Your task to perform on an android device: see creations saved in the google photos Image 0: 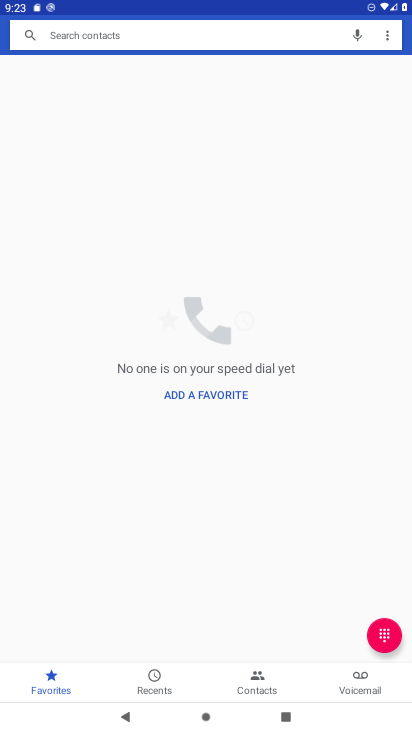
Step 0: press home button
Your task to perform on an android device: see creations saved in the google photos Image 1: 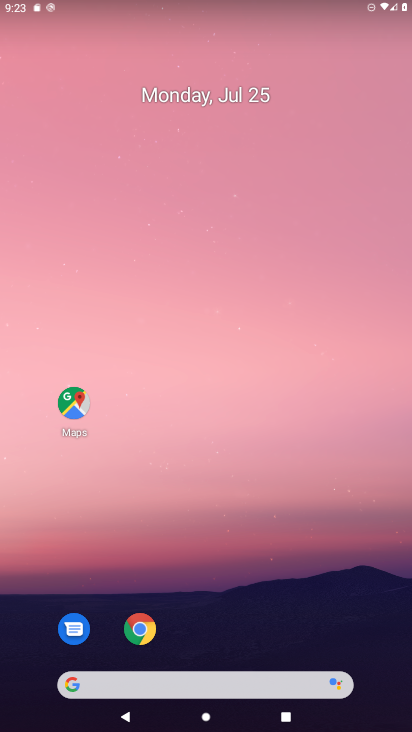
Step 1: drag from (202, 641) to (121, 0)
Your task to perform on an android device: see creations saved in the google photos Image 2: 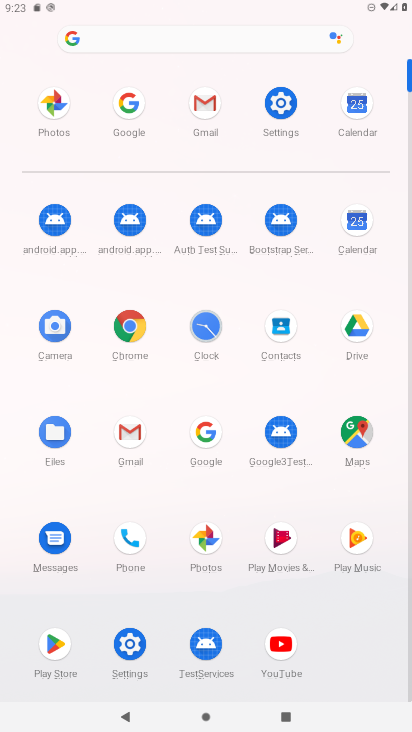
Step 2: click (56, 123)
Your task to perform on an android device: see creations saved in the google photos Image 3: 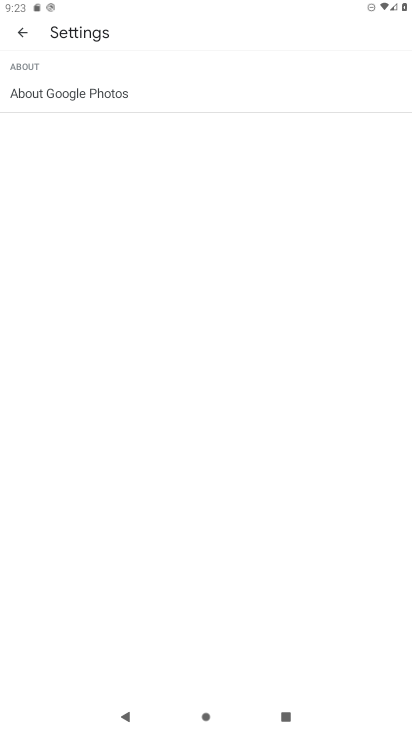
Step 3: click (16, 39)
Your task to perform on an android device: see creations saved in the google photos Image 4: 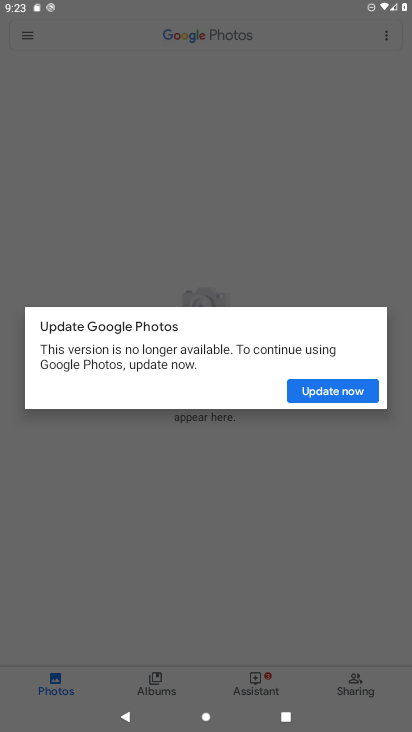
Step 4: click (360, 401)
Your task to perform on an android device: see creations saved in the google photos Image 5: 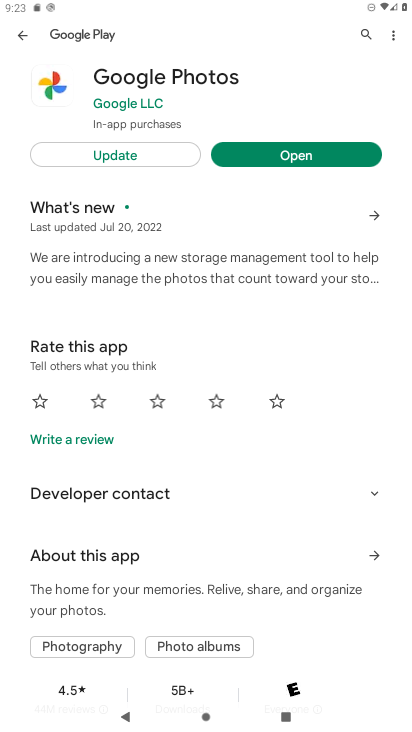
Step 5: click (260, 174)
Your task to perform on an android device: see creations saved in the google photos Image 6: 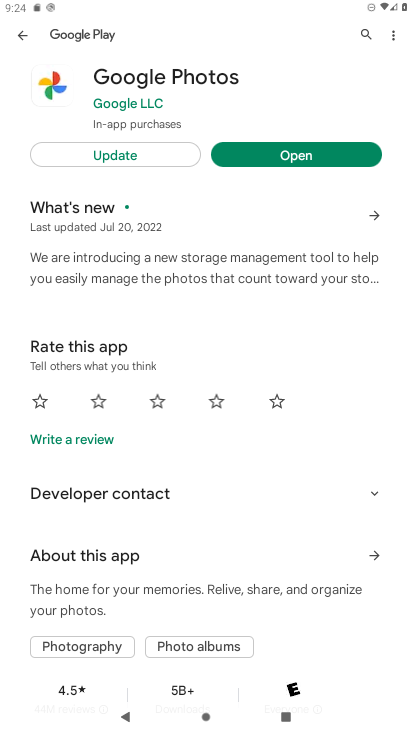
Step 6: click (264, 159)
Your task to perform on an android device: see creations saved in the google photos Image 7: 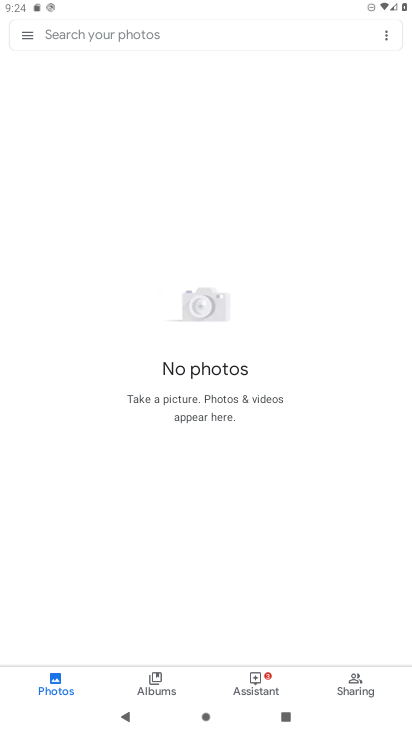
Step 7: click (63, 32)
Your task to perform on an android device: see creations saved in the google photos Image 8: 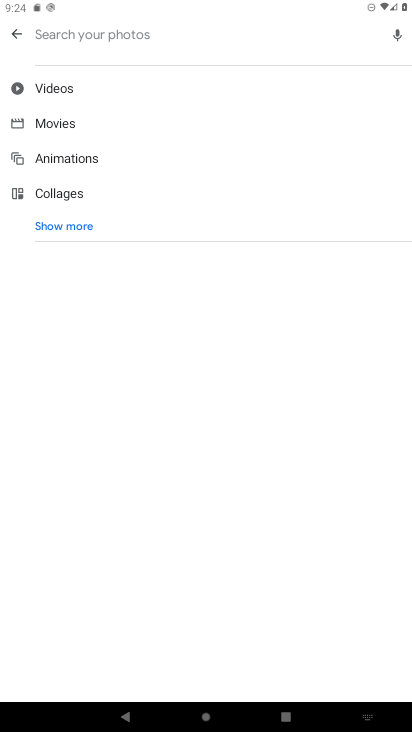
Step 8: click (45, 224)
Your task to perform on an android device: see creations saved in the google photos Image 9: 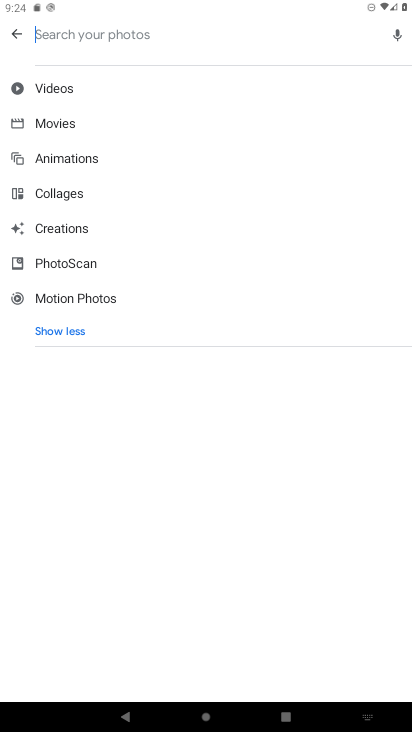
Step 9: click (60, 230)
Your task to perform on an android device: see creations saved in the google photos Image 10: 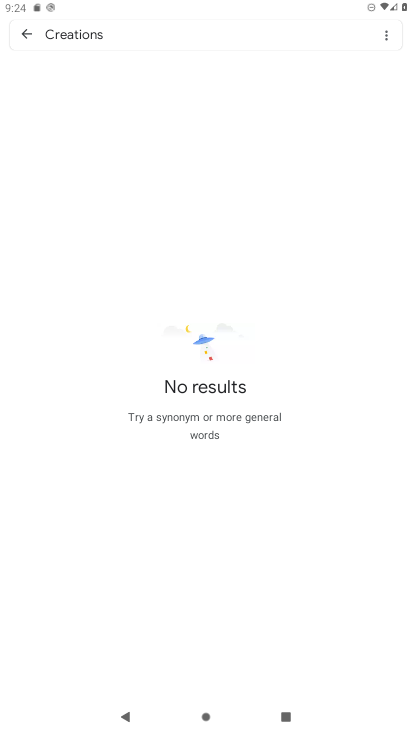
Step 10: task complete